Your task to perform on an android device: toggle airplane mode Image 0: 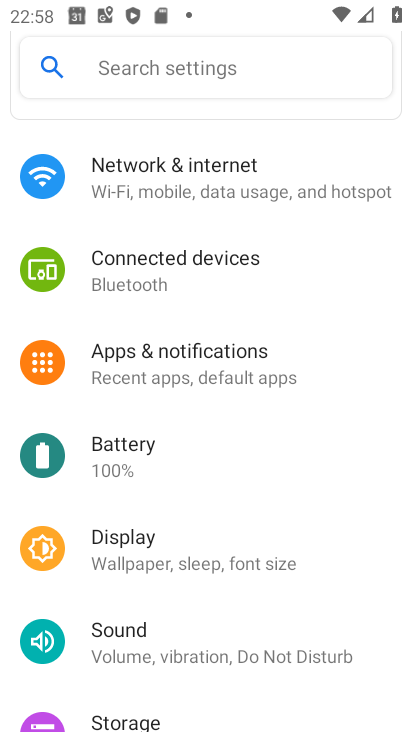
Step 0: click (289, 186)
Your task to perform on an android device: toggle airplane mode Image 1: 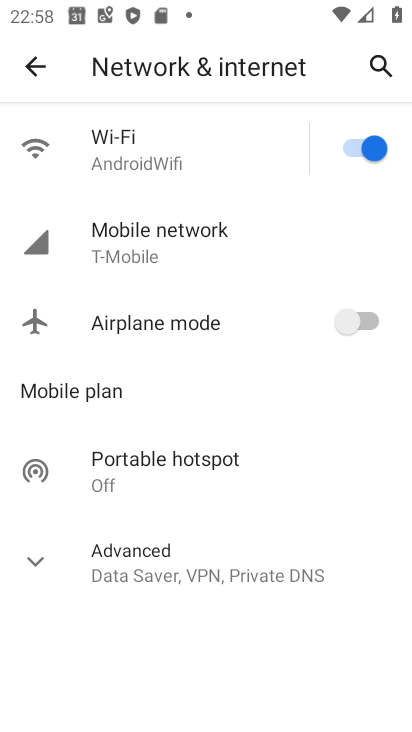
Step 1: click (371, 318)
Your task to perform on an android device: toggle airplane mode Image 2: 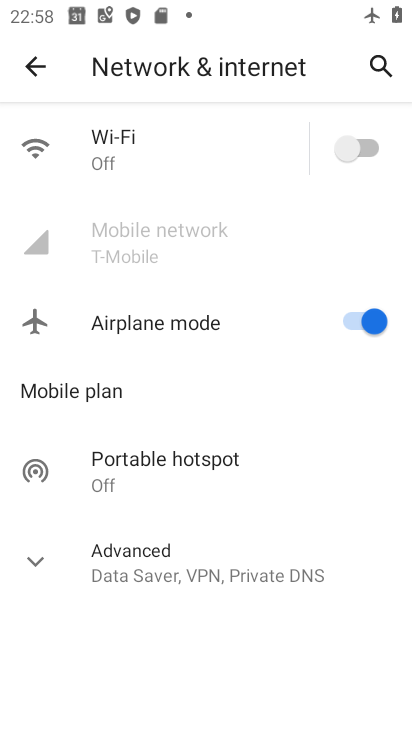
Step 2: task complete